Your task to perform on an android device: create a new album in the google photos Image 0: 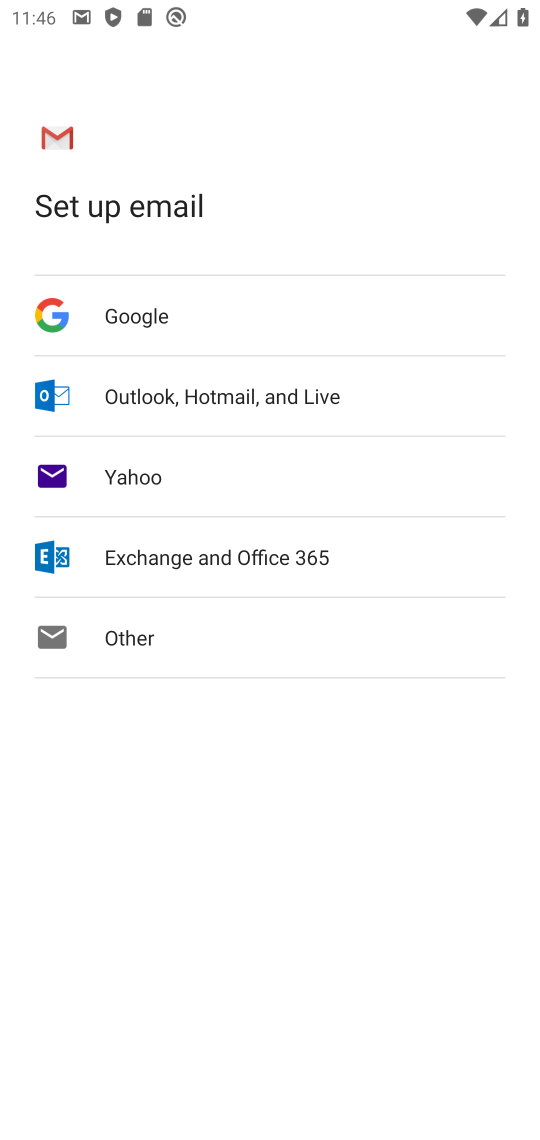
Step 0: press home button
Your task to perform on an android device: create a new album in the google photos Image 1: 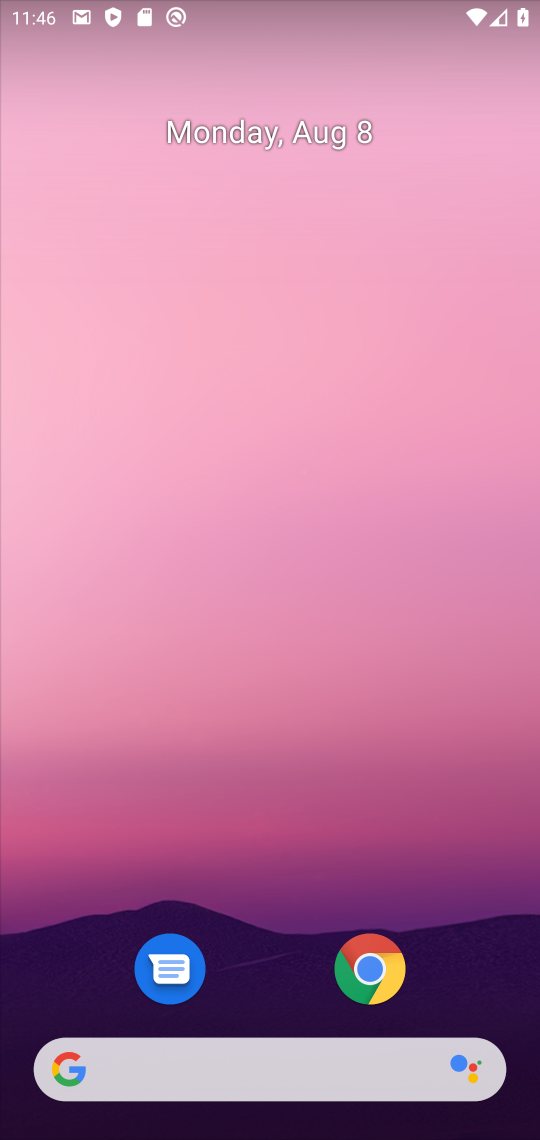
Step 1: drag from (266, 910) to (298, 67)
Your task to perform on an android device: create a new album in the google photos Image 2: 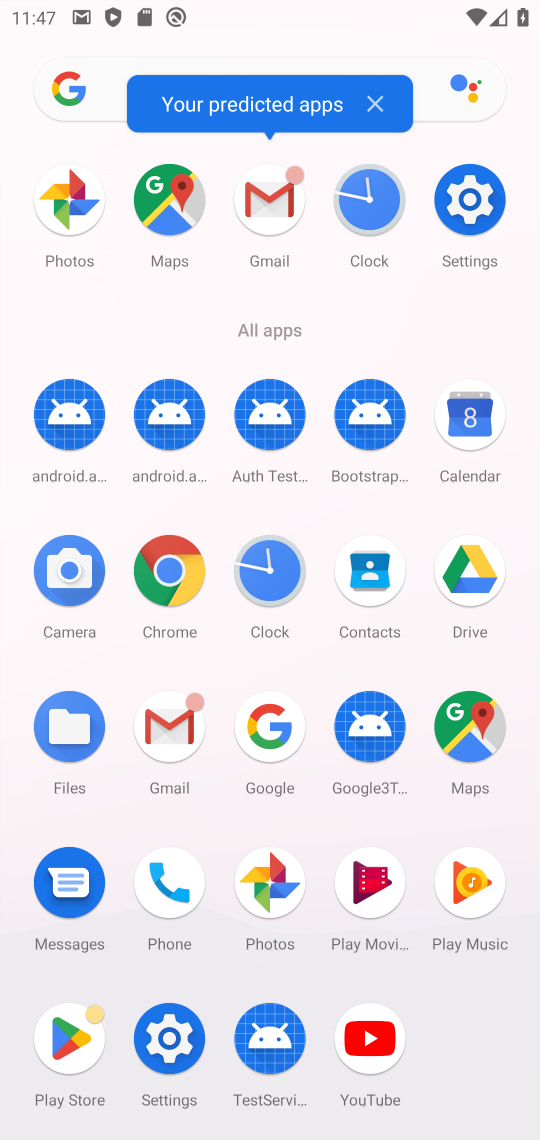
Step 2: click (267, 876)
Your task to perform on an android device: create a new album in the google photos Image 3: 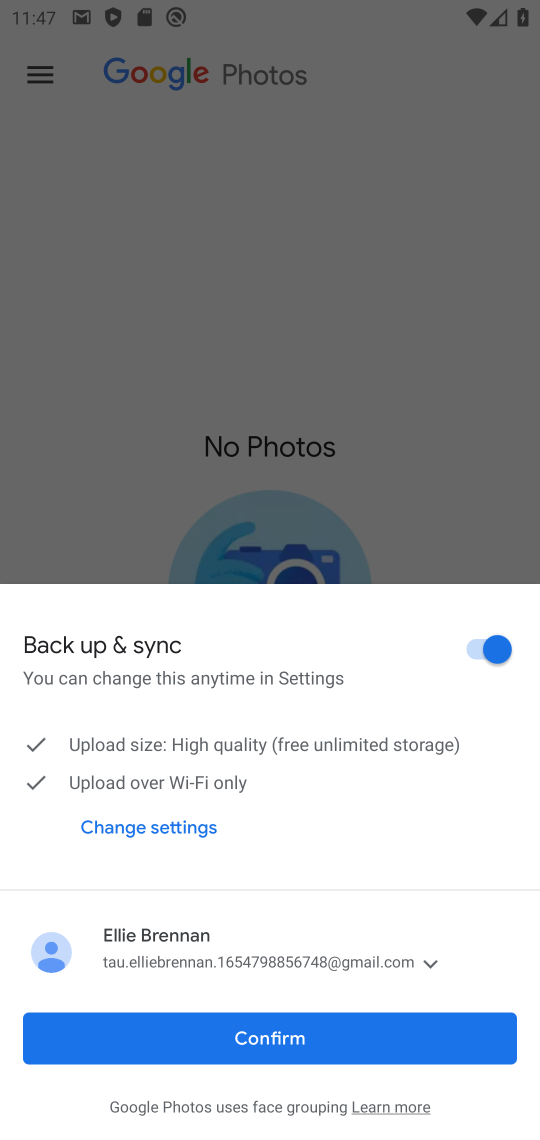
Step 3: click (328, 1028)
Your task to perform on an android device: create a new album in the google photos Image 4: 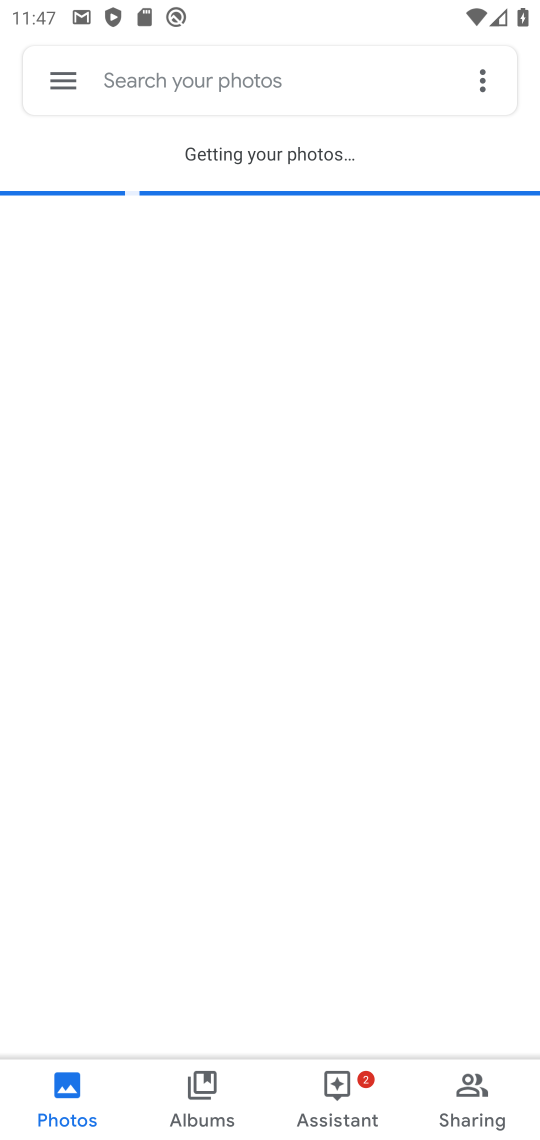
Step 4: click (185, 1098)
Your task to perform on an android device: create a new album in the google photos Image 5: 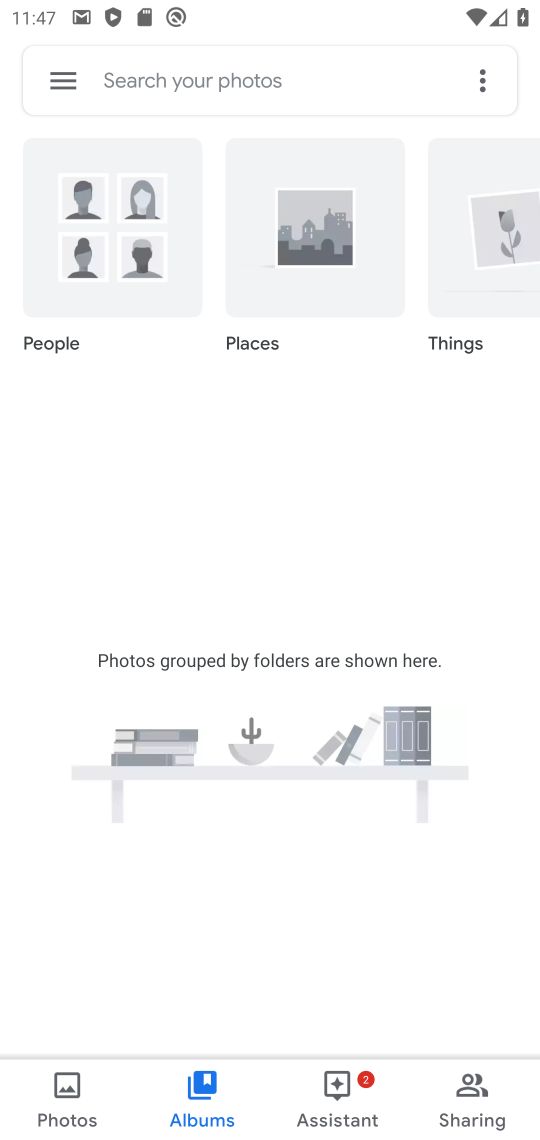
Step 5: click (487, 78)
Your task to perform on an android device: create a new album in the google photos Image 6: 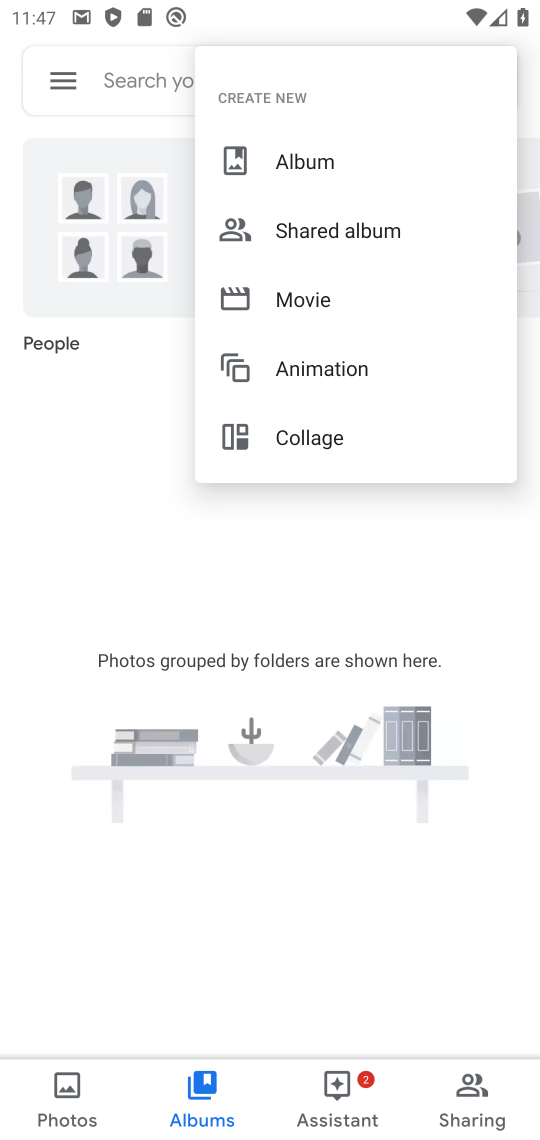
Step 6: click (266, 175)
Your task to perform on an android device: create a new album in the google photos Image 7: 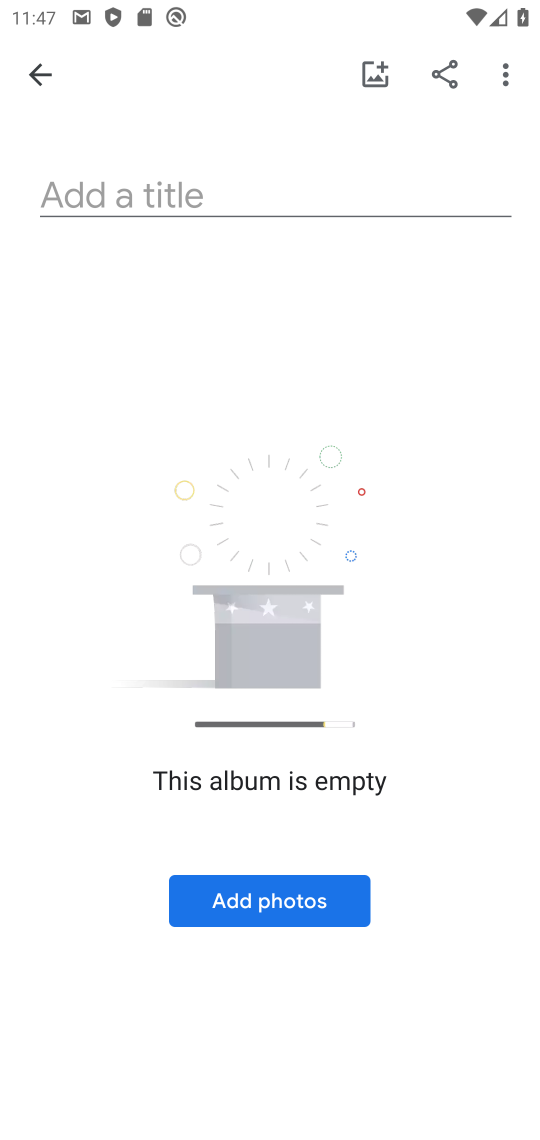
Step 7: click (254, 900)
Your task to perform on an android device: create a new album in the google photos Image 8: 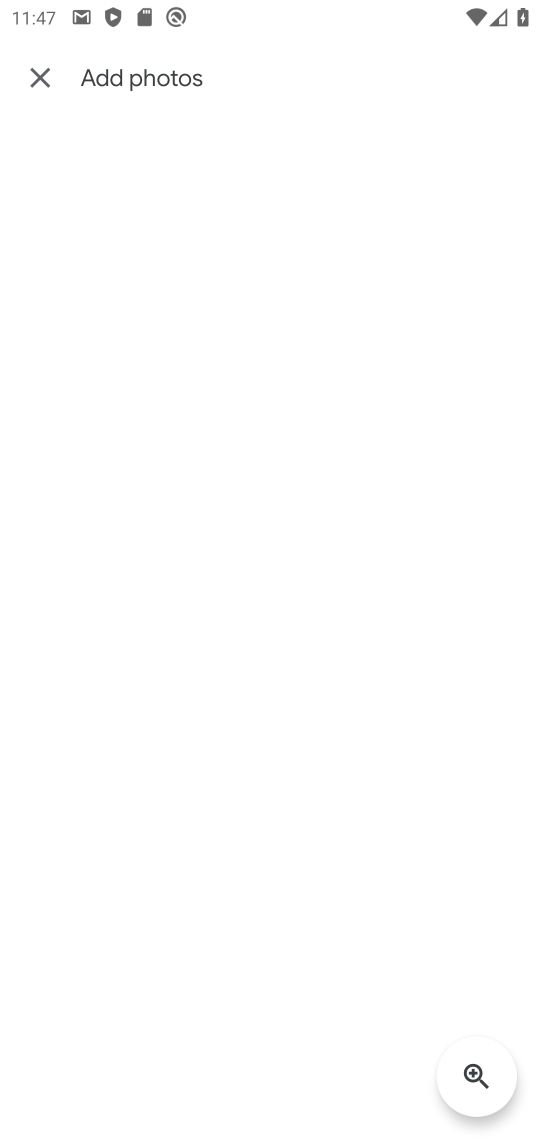
Step 8: task complete